Your task to perform on an android device: Open privacy settings Image 0: 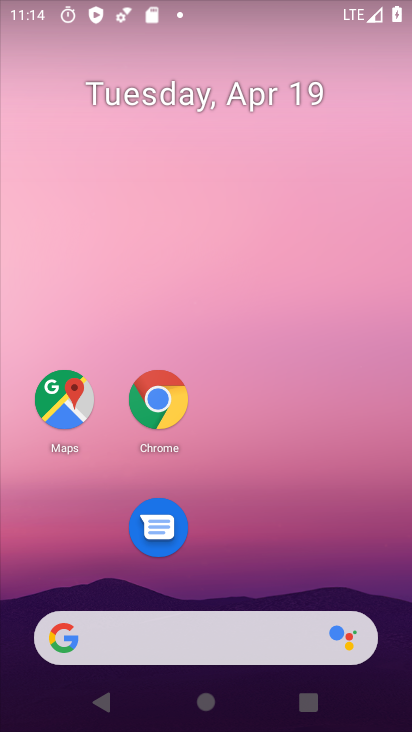
Step 0: drag from (259, 675) to (228, 54)
Your task to perform on an android device: Open privacy settings Image 1: 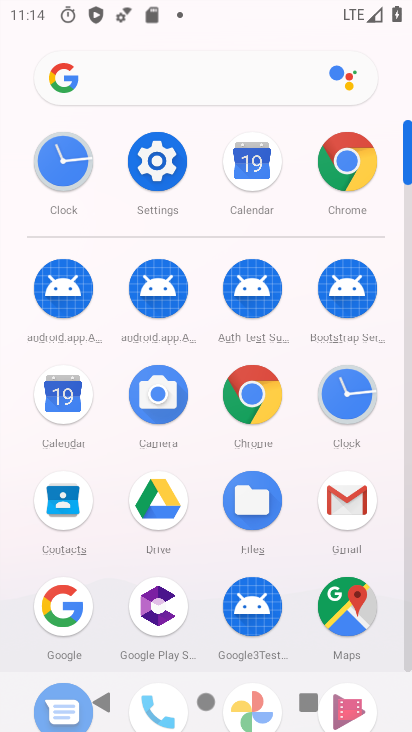
Step 1: click (153, 154)
Your task to perform on an android device: Open privacy settings Image 2: 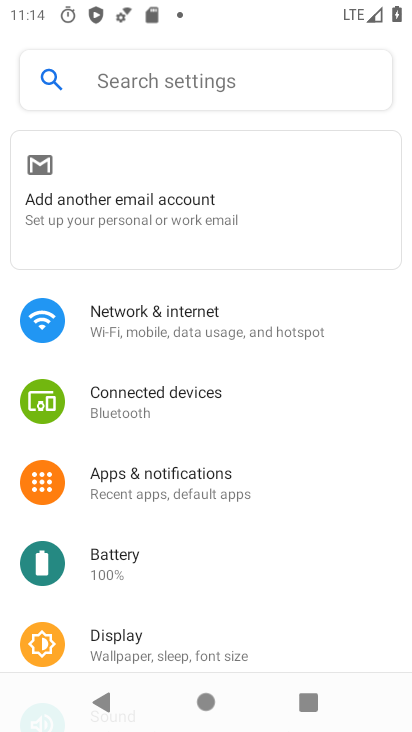
Step 2: drag from (143, 559) to (153, 411)
Your task to perform on an android device: Open privacy settings Image 3: 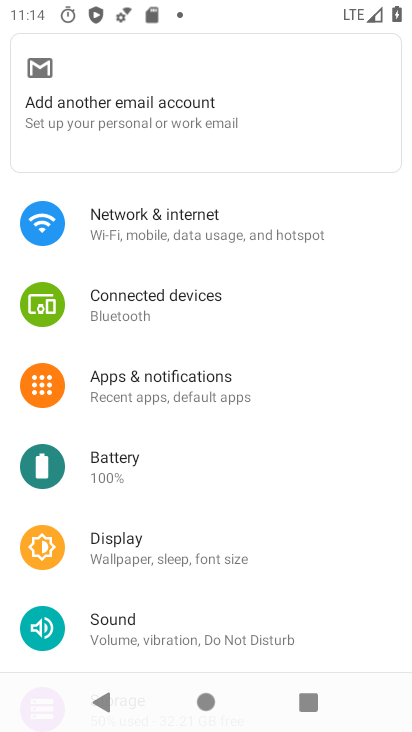
Step 3: drag from (149, 487) to (157, 263)
Your task to perform on an android device: Open privacy settings Image 4: 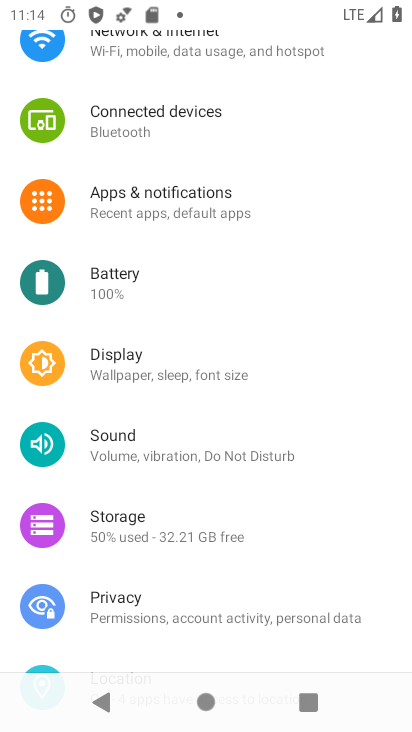
Step 4: click (123, 609)
Your task to perform on an android device: Open privacy settings Image 5: 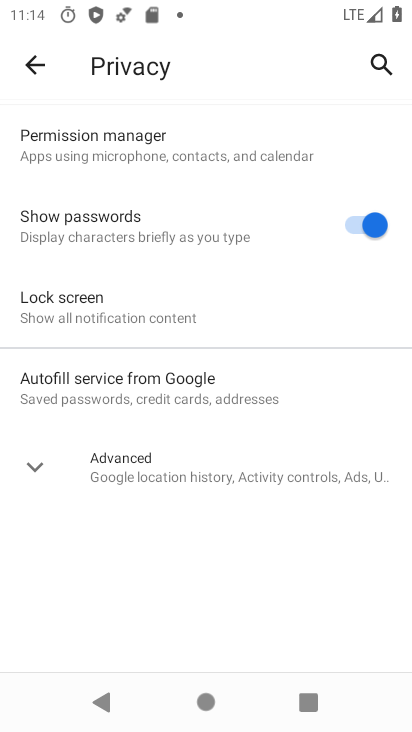
Step 5: click (121, 466)
Your task to perform on an android device: Open privacy settings Image 6: 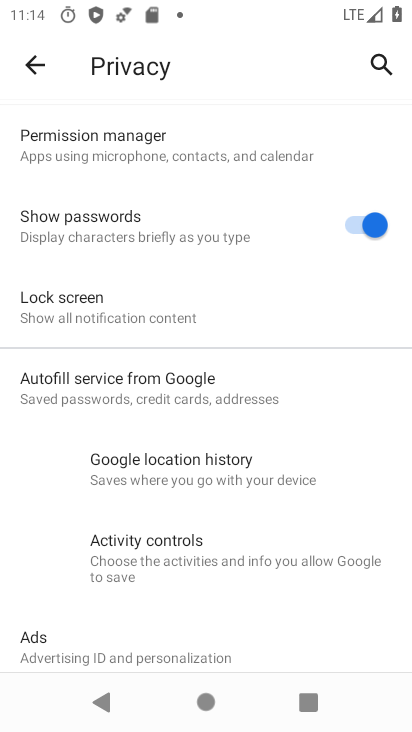
Step 6: task complete